Your task to perform on an android device: manage bookmarks in the chrome app Image 0: 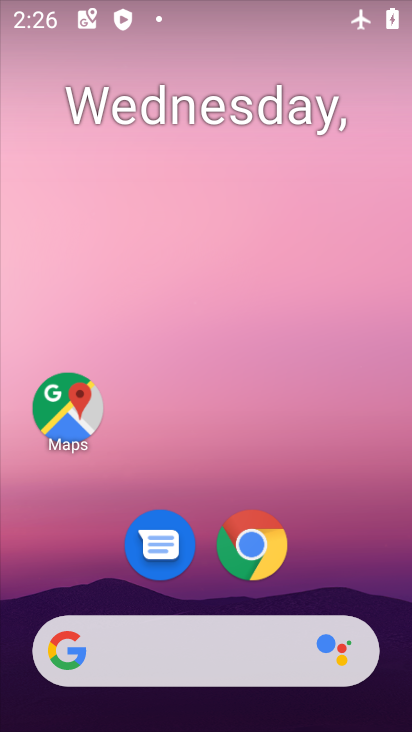
Step 0: click (248, 541)
Your task to perform on an android device: manage bookmarks in the chrome app Image 1: 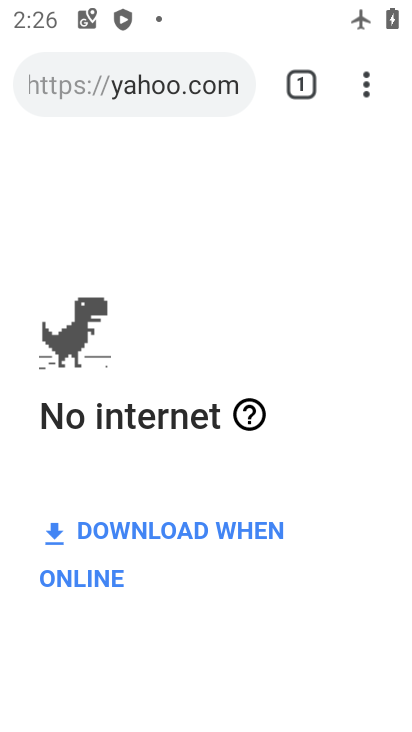
Step 1: drag from (370, 81) to (177, 320)
Your task to perform on an android device: manage bookmarks in the chrome app Image 2: 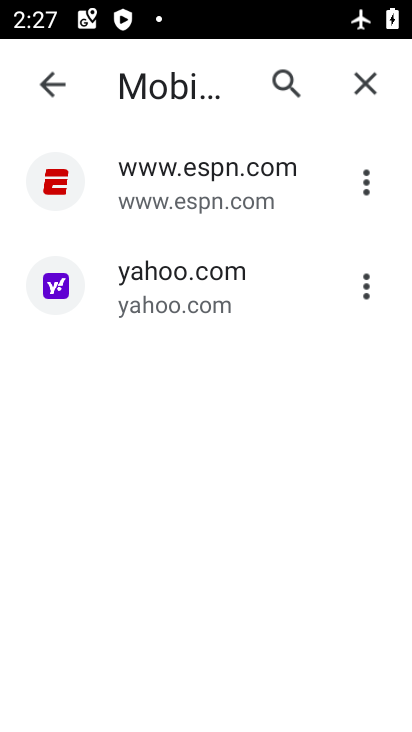
Step 2: click (363, 178)
Your task to perform on an android device: manage bookmarks in the chrome app Image 3: 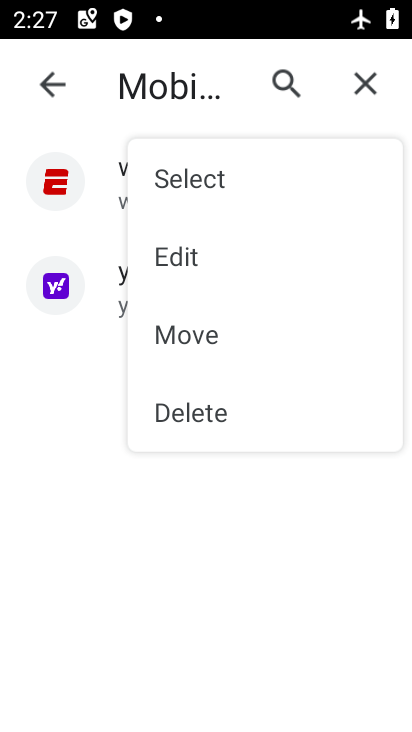
Step 3: click (221, 420)
Your task to perform on an android device: manage bookmarks in the chrome app Image 4: 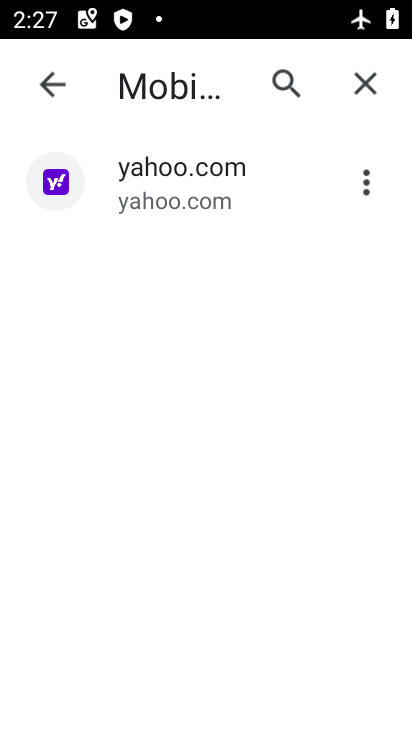
Step 4: task complete